Your task to perform on an android device: uninstall "Instagram" Image 0: 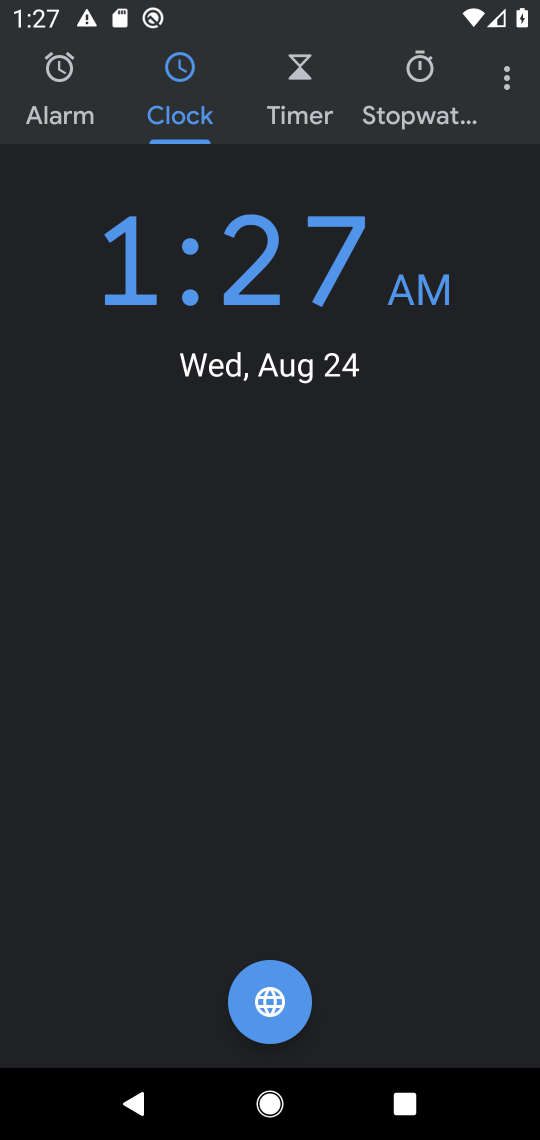
Step 0: press back button
Your task to perform on an android device: uninstall "Instagram" Image 1: 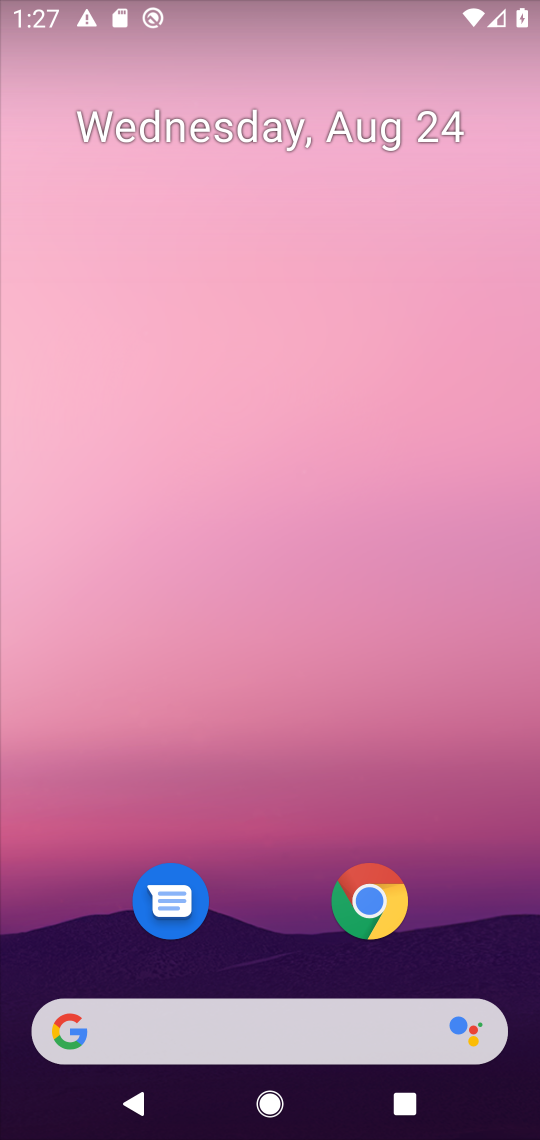
Step 1: drag from (288, 947) to (331, 106)
Your task to perform on an android device: uninstall "Instagram" Image 2: 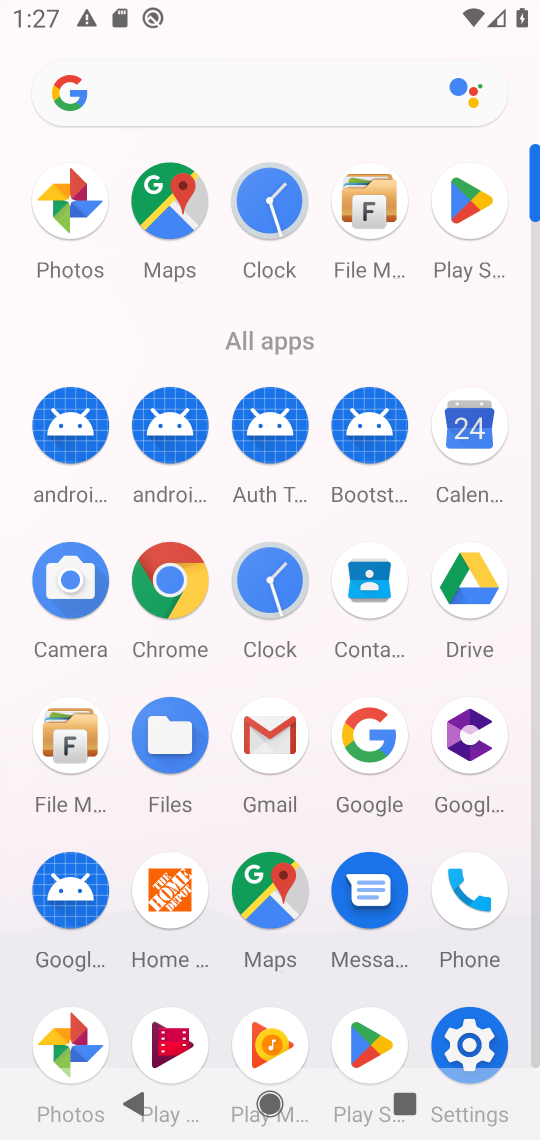
Step 2: click (458, 194)
Your task to perform on an android device: uninstall "Instagram" Image 3: 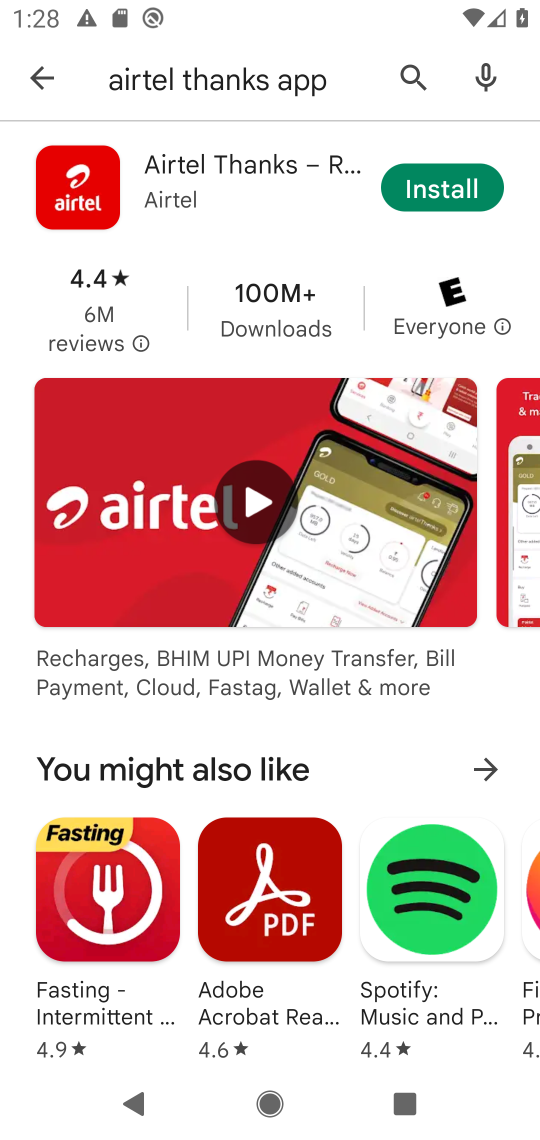
Step 3: click (406, 78)
Your task to perform on an android device: uninstall "Instagram" Image 4: 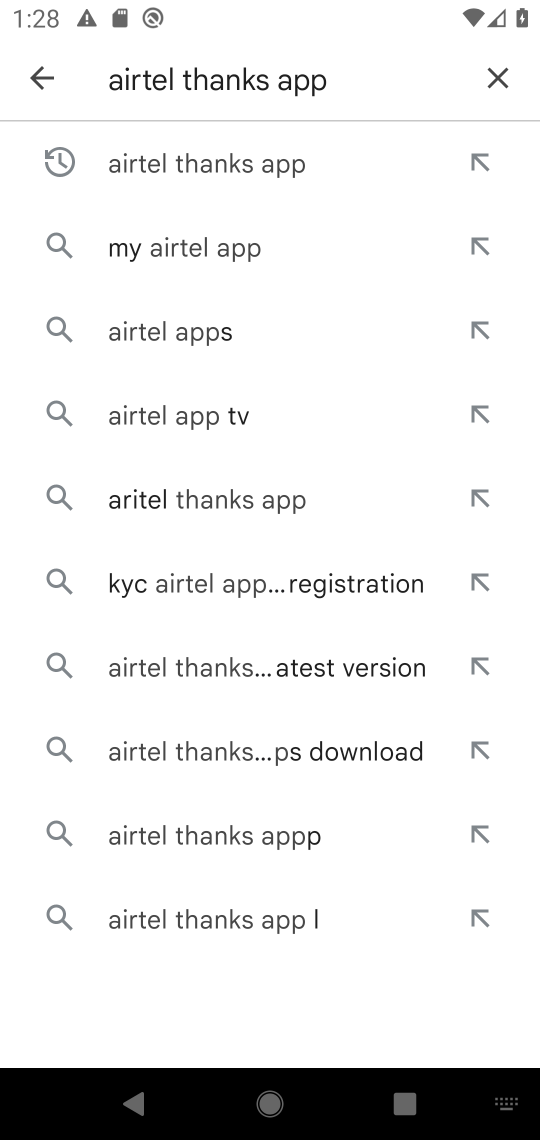
Step 4: click (481, 76)
Your task to perform on an android device: uninstall "Instagram" Image 5: 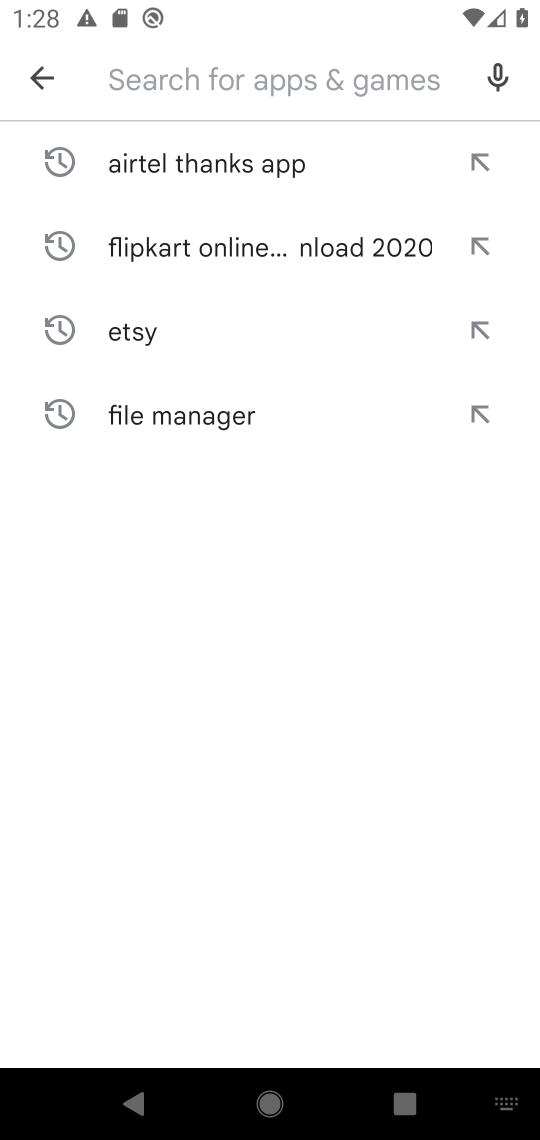
Step 5: click (212, 78)
Your task to perform on an android device: uninstall "Instagram" Image 6: 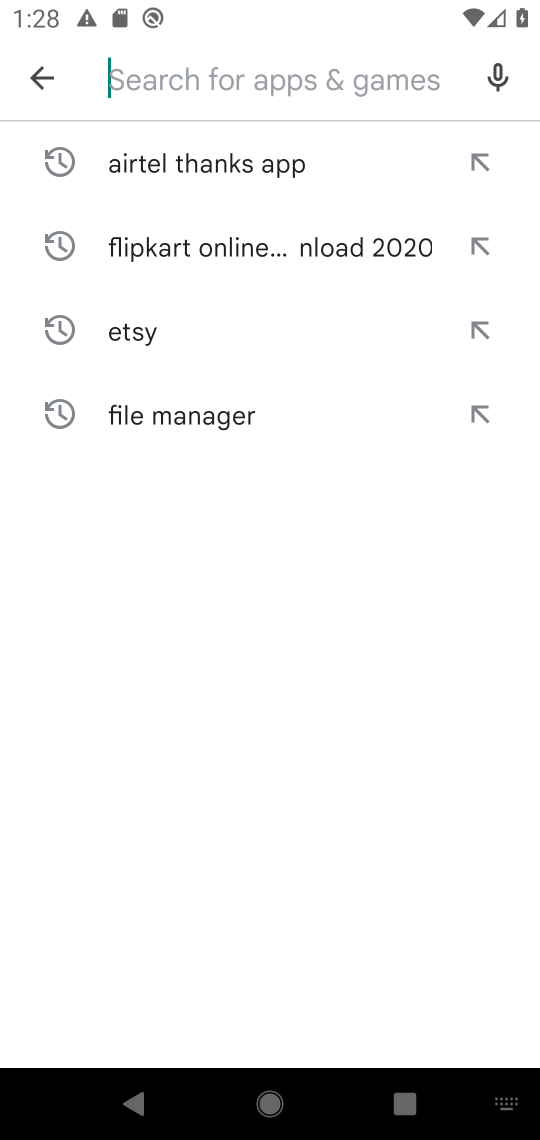
Step 6: type "Instagram"
Your task to perform on an android device: uninstall "Instagram" Image 7: 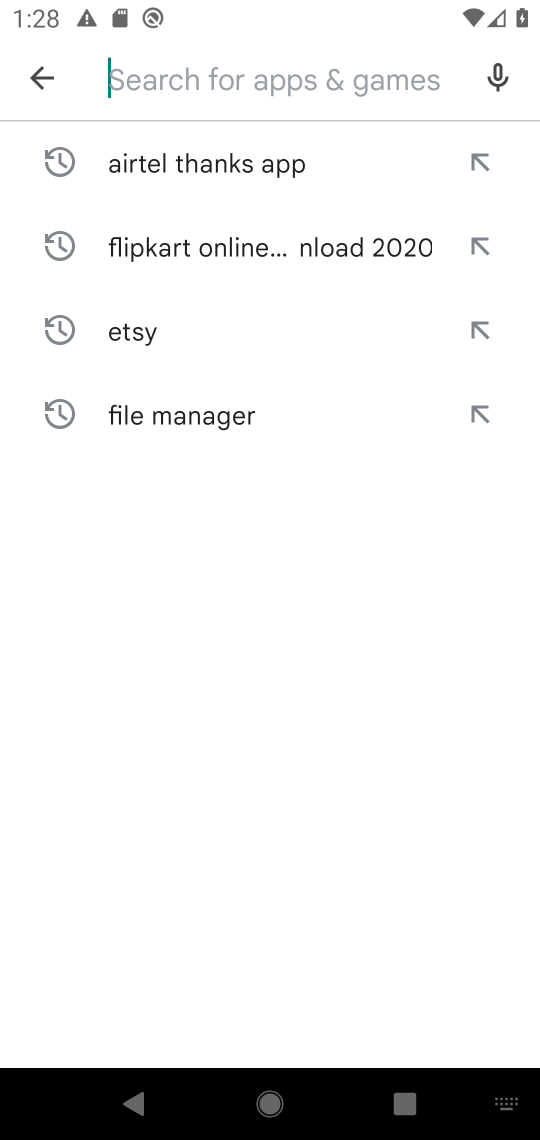
Step 7: click (256, 730)
Your task to perform on an android device: uninstall "Instagram" Image 8: 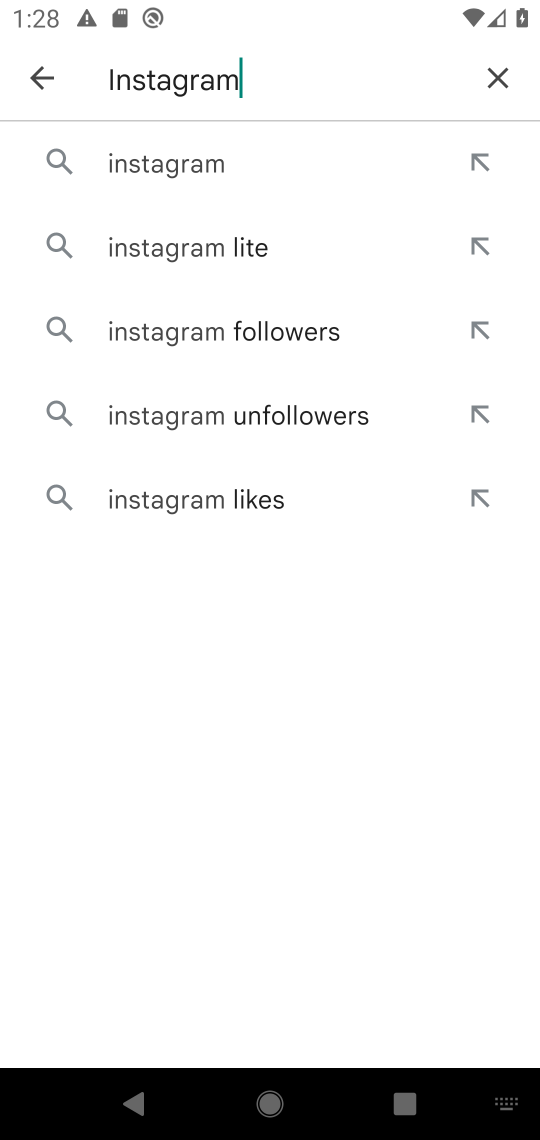
Step 8: click (176, 158)
Your task to perform on an android device: uninstall "Instagram" Image 9: 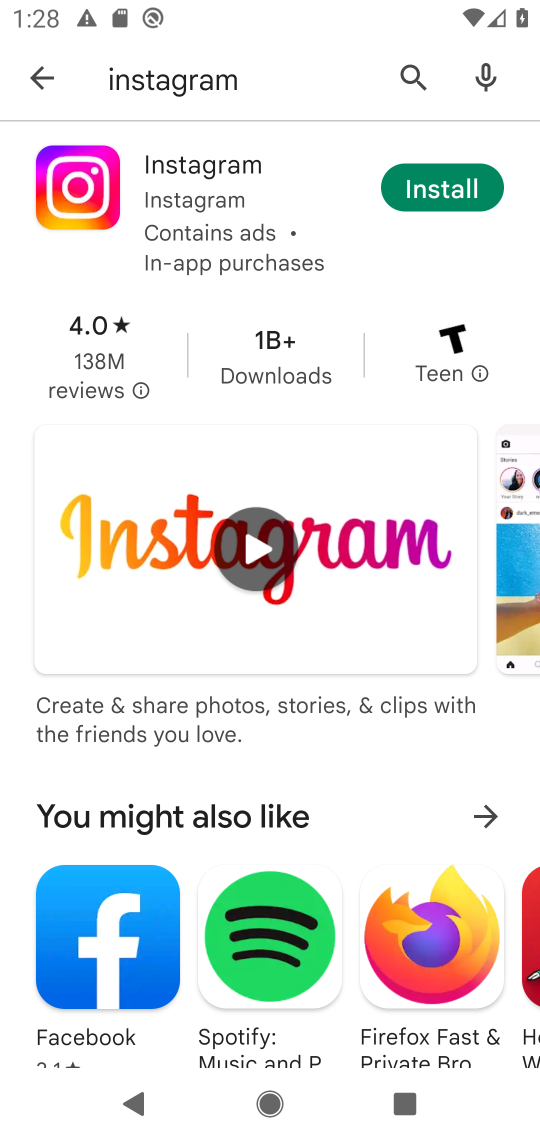
Step 9: task complete